Your task to perform on an android device: change text size in settings app Image 0: 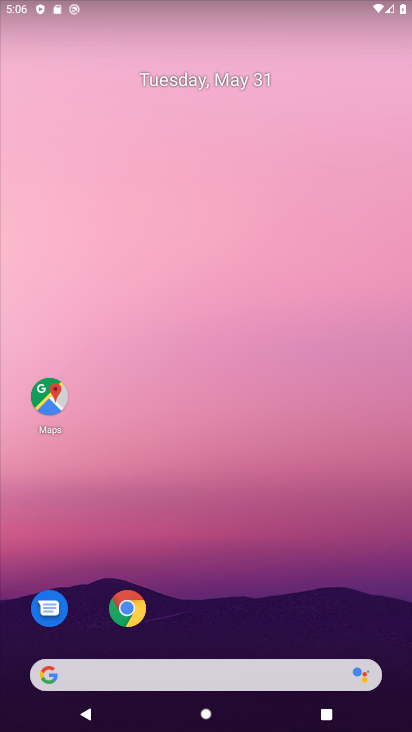
Step 0: drag from (246, 622) to (246, 152)
Your task to perform on an android device: change text size in settings app Image 1: 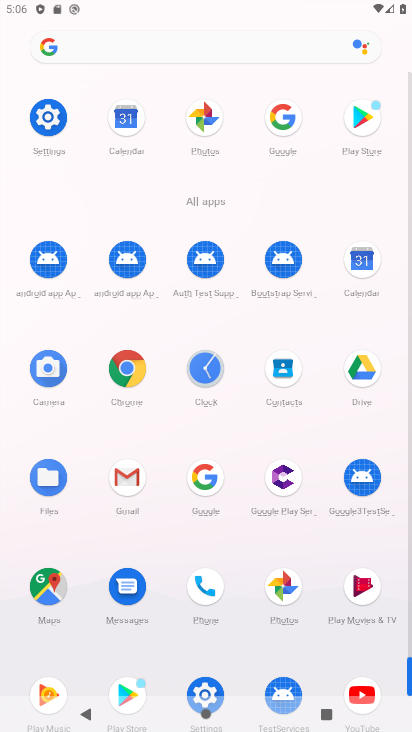
Step 1: click (45, 118)
Your task to perform on an android device: change text size in settings app Image 2: 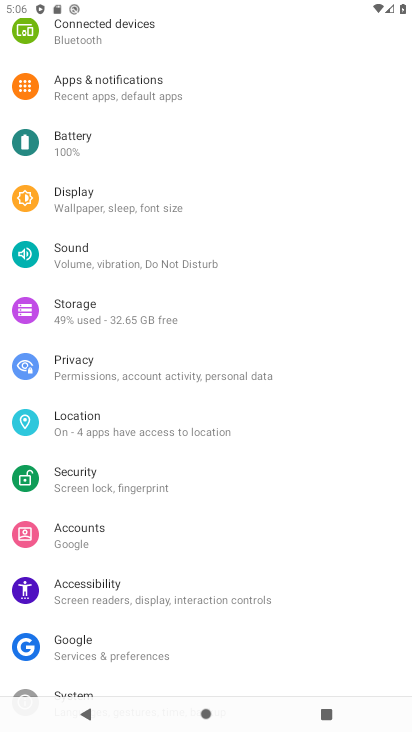
Step 2: click (106, 582)
Your task to perform on an android device: change text size in settings app Image 3: 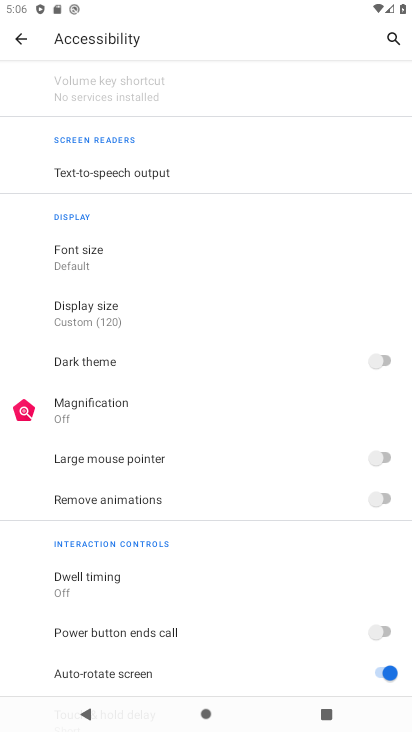
Step 3: click (107, 244)
Your task to perform on an android device: change text size in settings app Image 4: 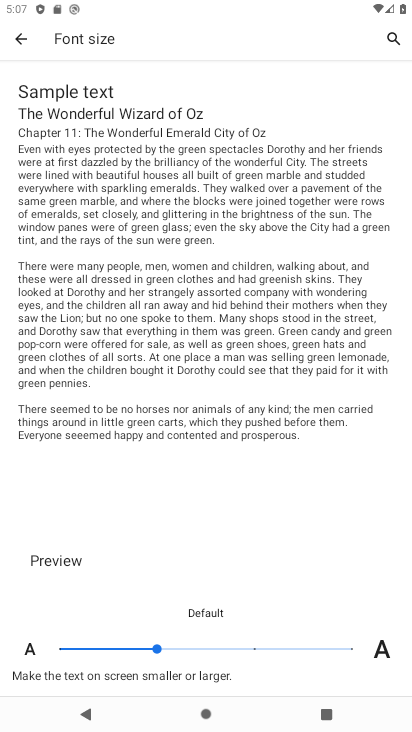
Step 4: click (251, 642)
Your task to perform on an android device: change text size in settings app Image 5: 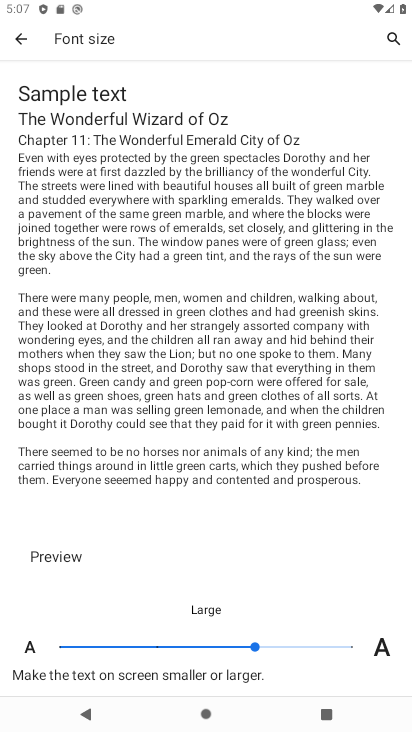
Step 5: task complete